Your task to perform on an android device: change text size in settings app Image 0: 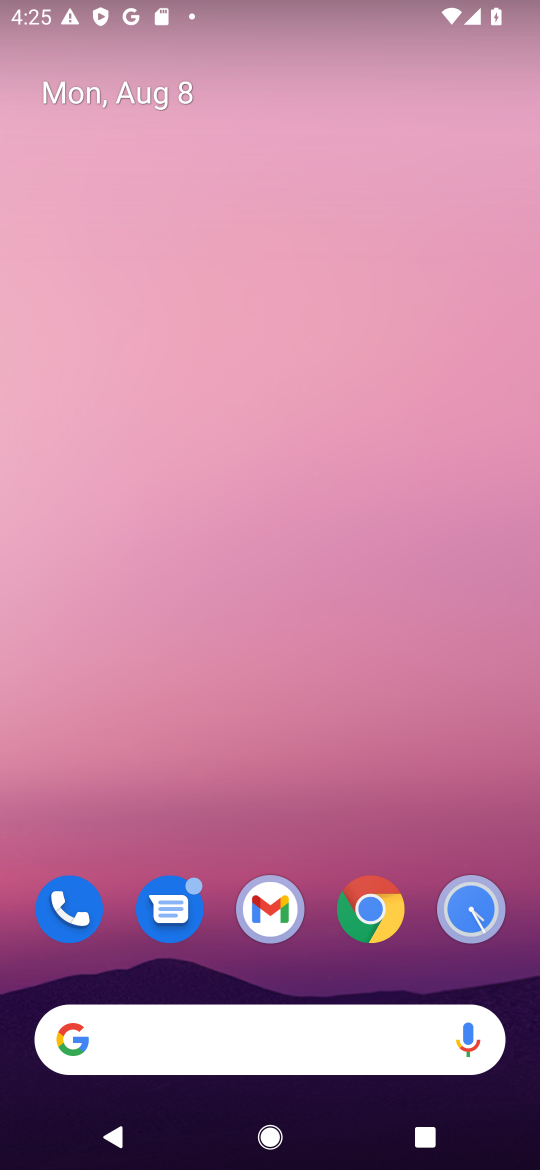
Step 0: drag from (286, 899) to (422, 79)
Your task to perform on an android device: change text size in settings app Image 1: 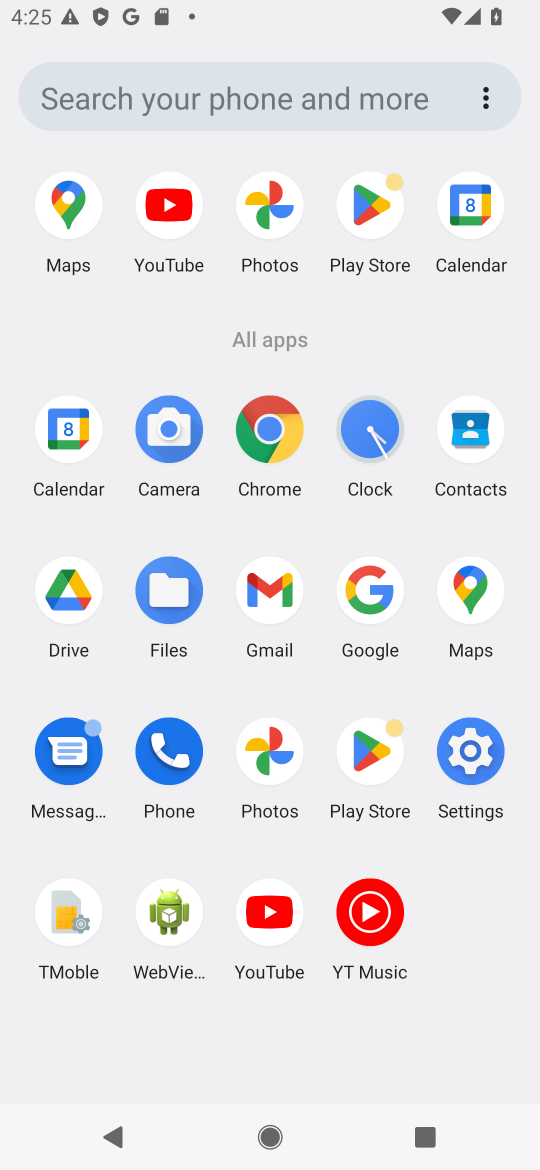
Step 1: click (477, 756)
Your task to perform on an android device: change text size in settings app Image 2: 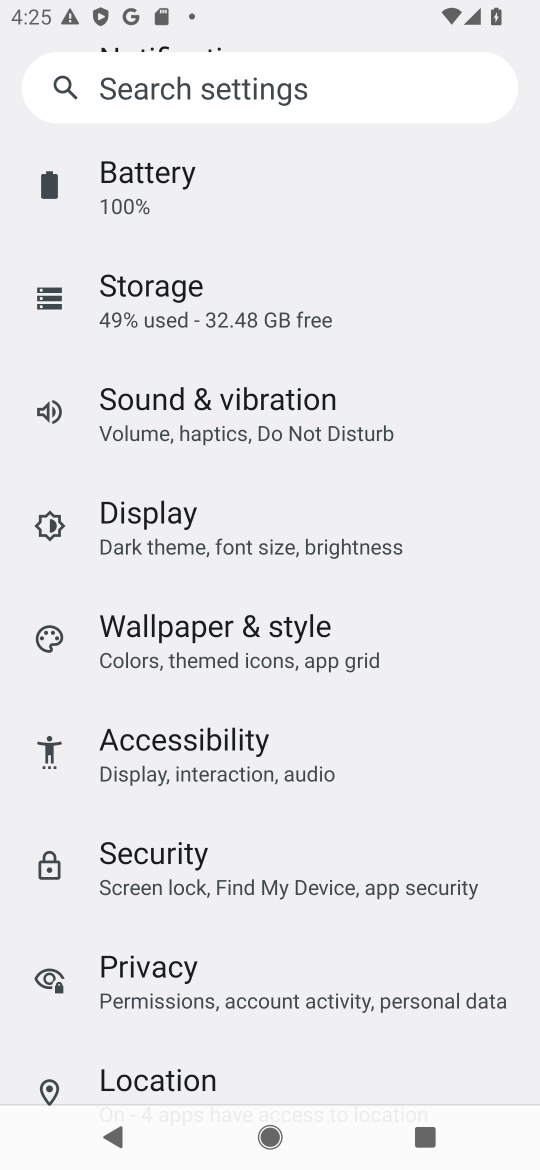
Step 2: click (233, 532)
Your task to perform on an android device: change text size in settings app Image 3: 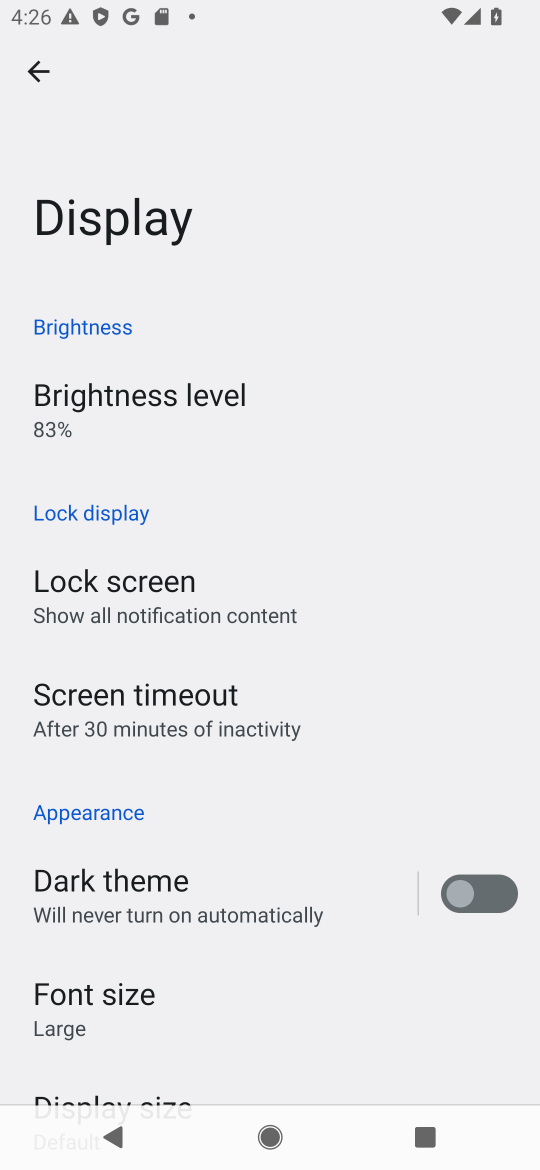
Step 3: drag from (293, 840) to (424, 243)
Your task to perform on an android device: change text size in settings app Image 4: 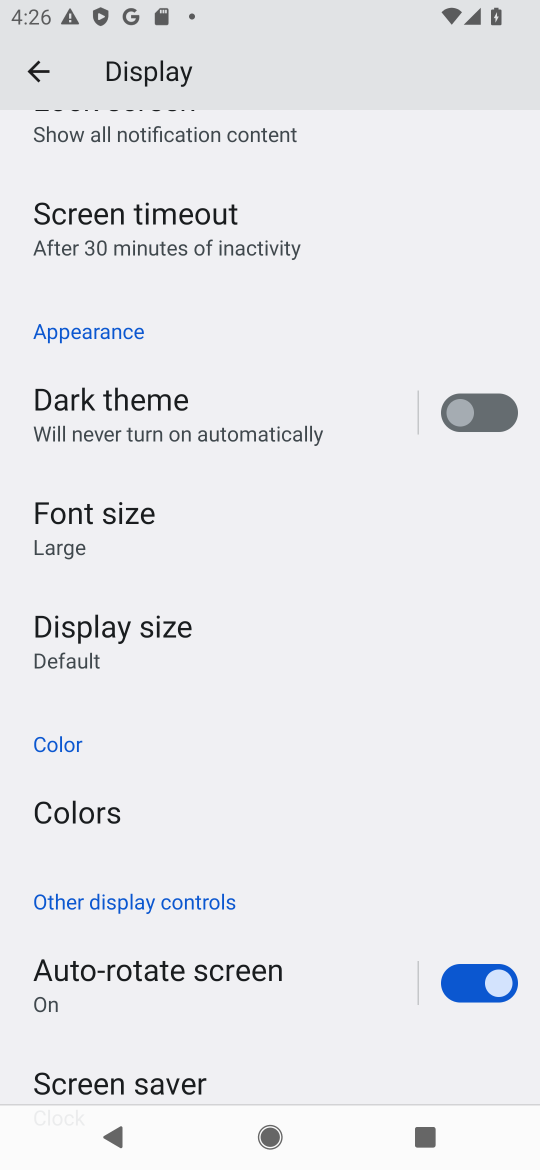
Step 4: click (146, 514)
Your task to perform on an android device: change text size in settings app Image 5: 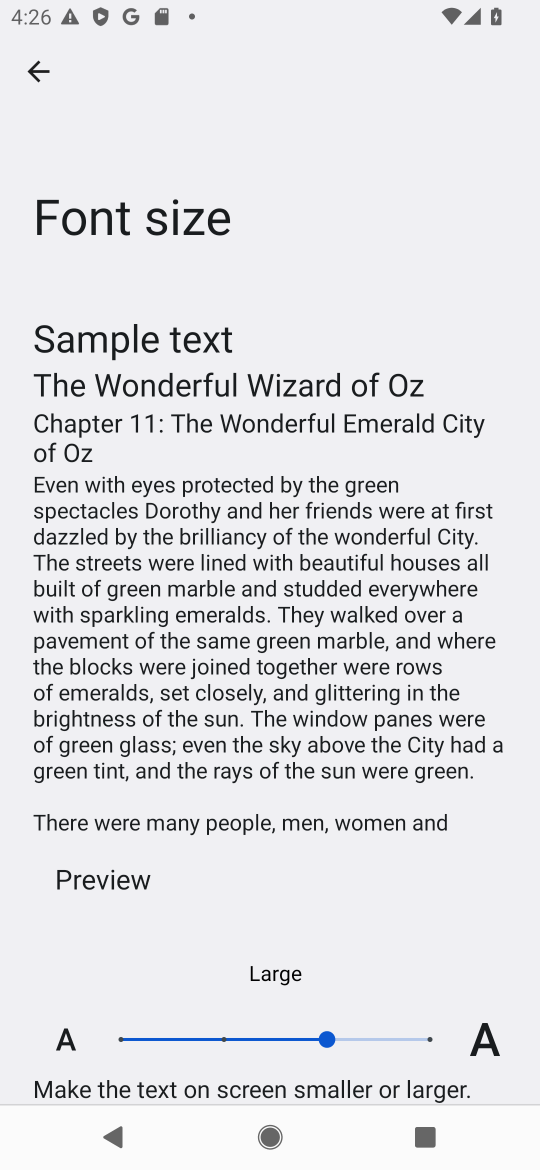
Step 5: click (224, 1036)
Your task to perform on an android device: change text size in settings app Image 6: 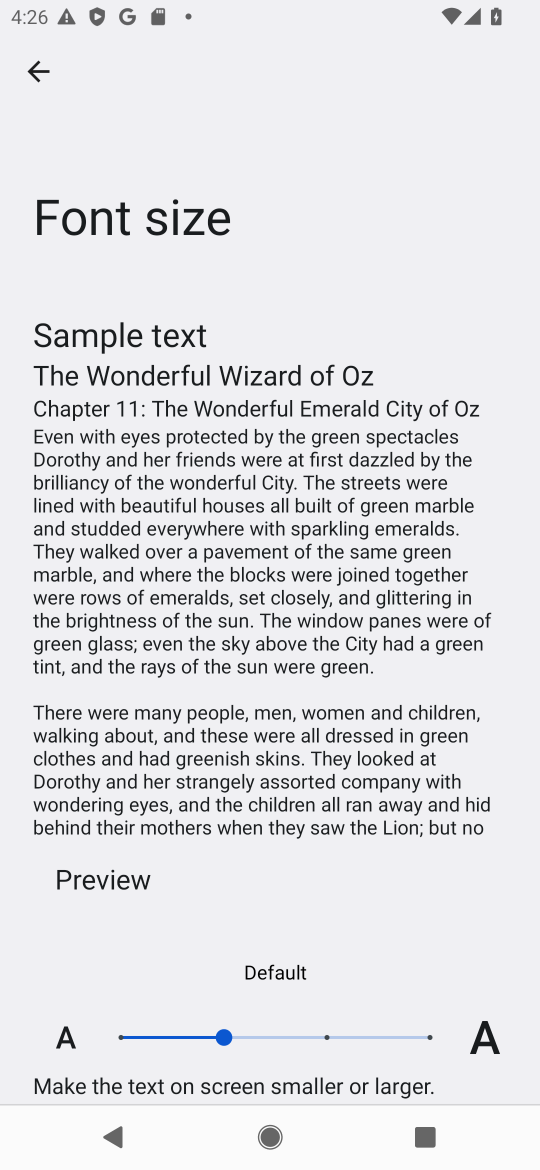
Step 6: task complete